Your task to perform on an android device: Open location settings Image 0: 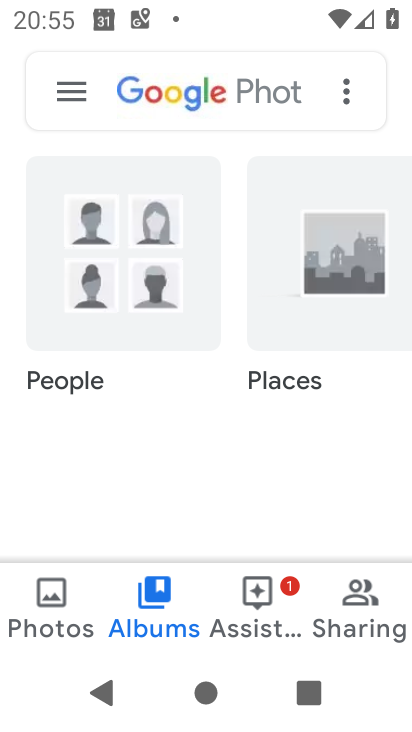
Step 0: press home button
Your task to perform on an android device: Open location settings Image 1: 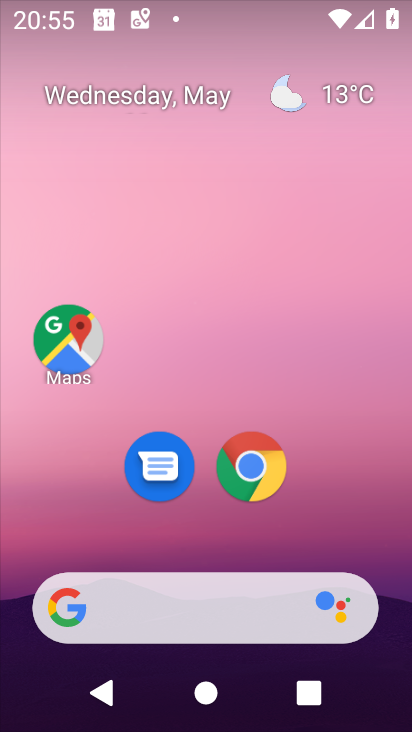
Step 1: drag from (208, 535) to (225, 50)
Your task to perform on an android device: Open location settings Image 2: 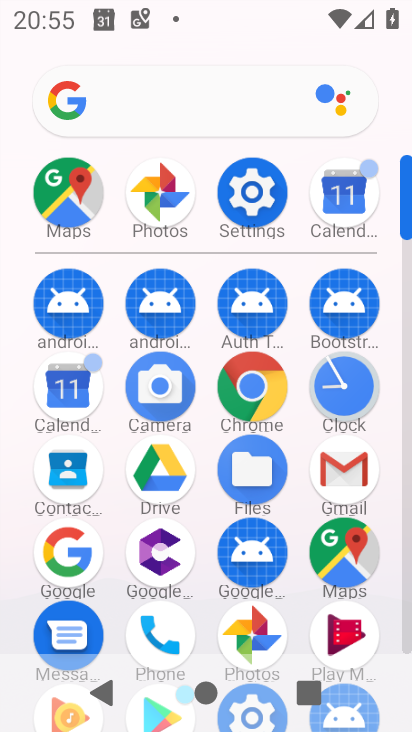
Step 2: click (251, 191)
Your task to perform on an android device: Open location settings Image 3: 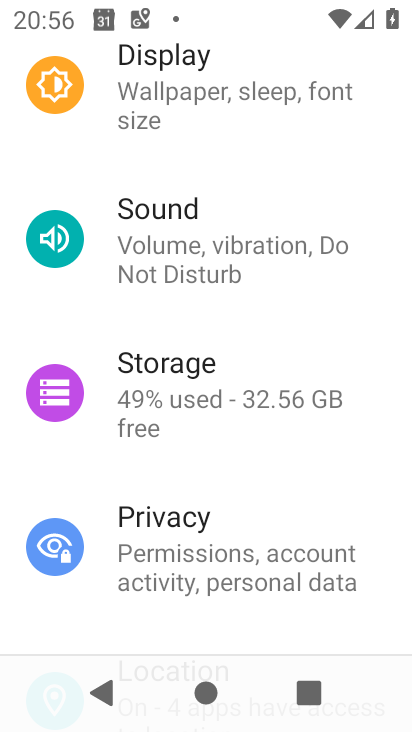
Step 3: drag from (262, 572) to (269, 163)
Your task to perform on an android device: Open location settings Image 4: 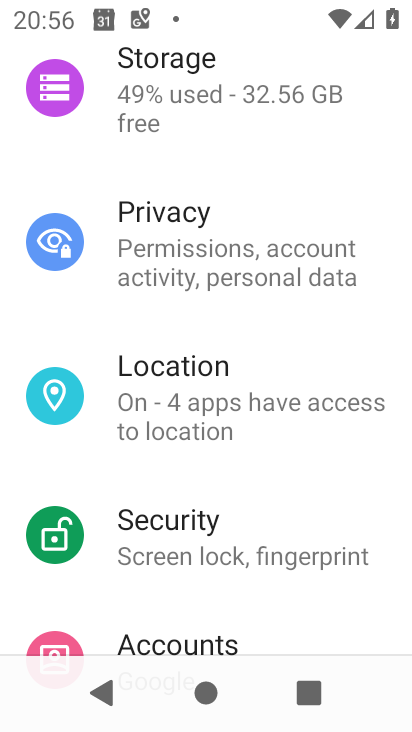
Step 4: click (218, 384)
Your task to perform on an android device: Open location settings Image 5: 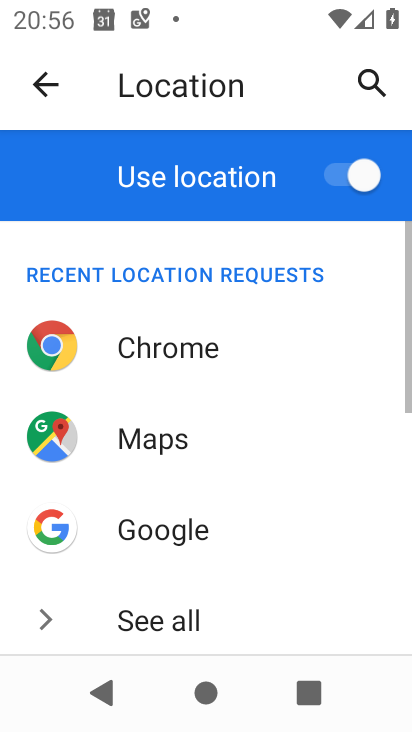
Step 5: drag from (199, 600) to (224, 292)
Your task to perform on an android device: Open location settings Image 6: 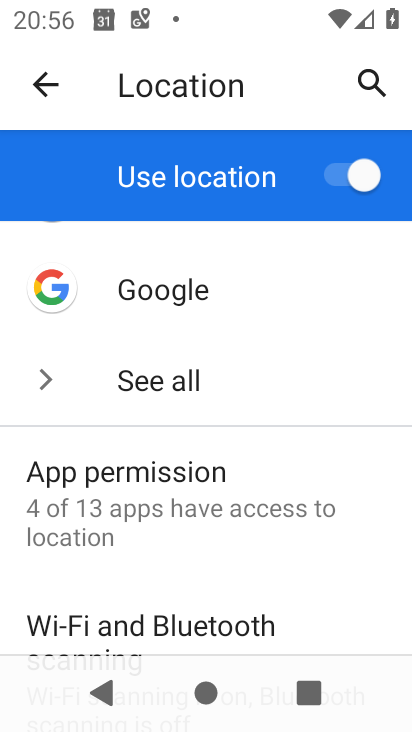
Step 6: drag from (231, 599) to (284, 165)
Your task to perform on an android device: Open location settings Image 7: 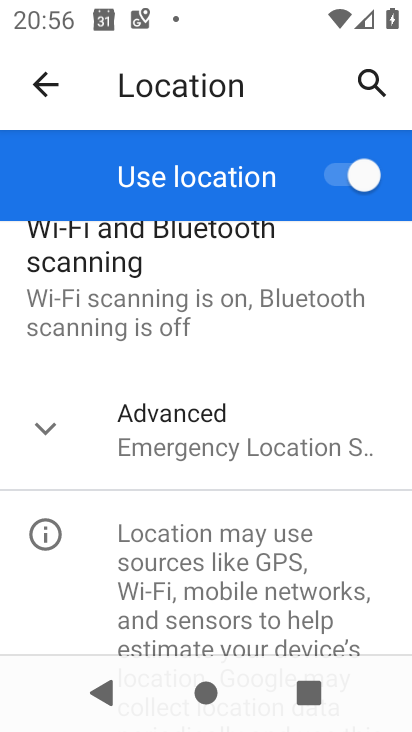
Step 7: click (42, 424)
Your task to perform on an android device: Open location settings Image 8: 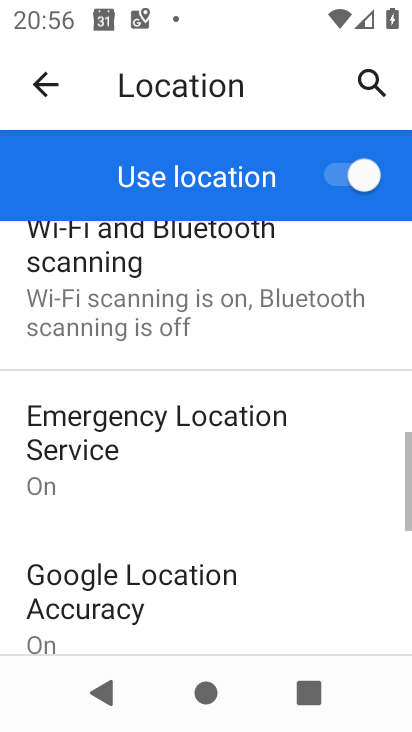
Step 8: task complete